Your task to perform on an android device: turn off javascript in the chrome app Image 0: 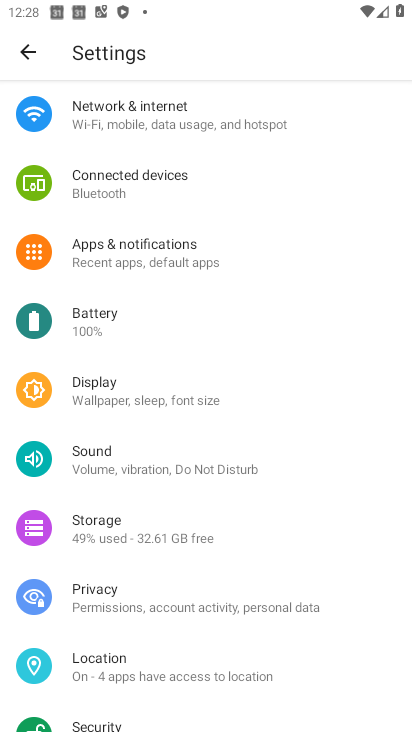
Step 0: press home button
Your task to perform on an android device: turn off javascript in the chrome app Image 1: 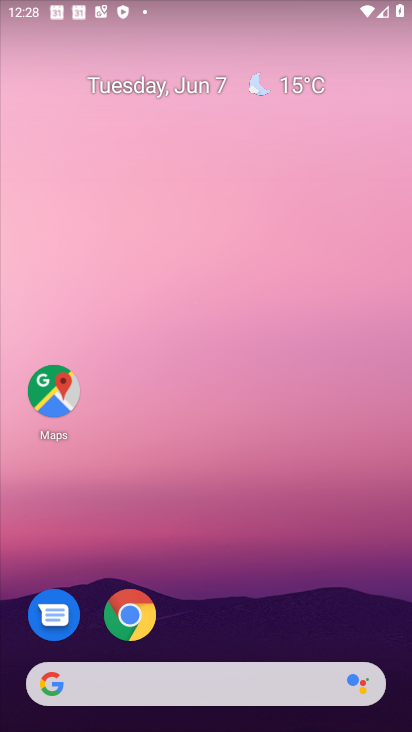
Step 1: click (166, 600)
Your task to perform on an android device: turn off javascript in the chrome app Image 2: 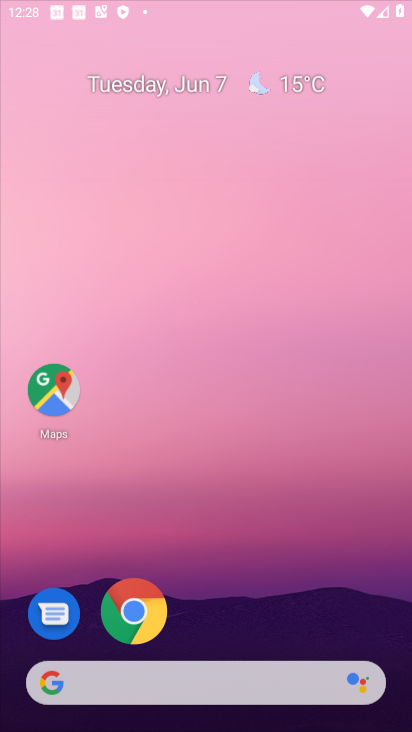
Step 2: click (146, 619)
Your task to perform on an android device: turn off javascript in the chrome app Image 3: 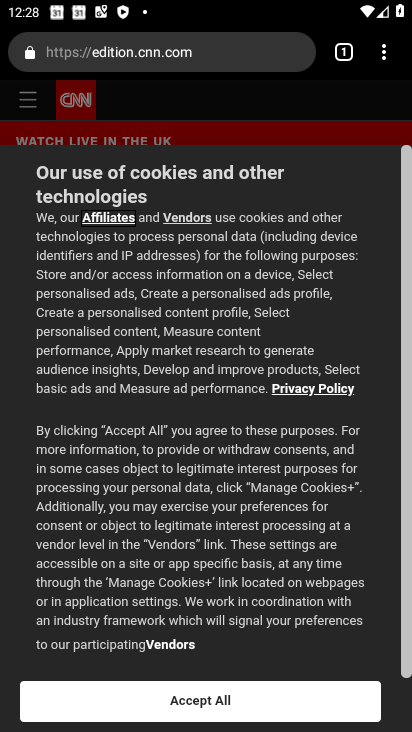
Step 3: click (387, 59)
Your task to perform on an android device: turn off javascript in the chrome app Image 4: 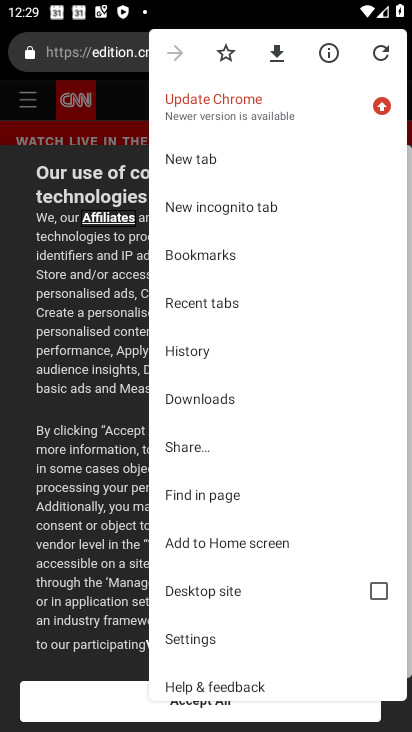
Step 4: click (193, 641)
Your task to perform on an android device: turn off javascript in the chrome app Image 5: 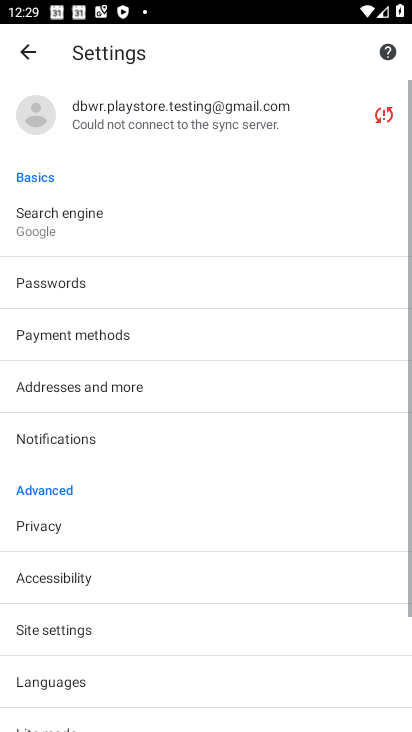
Step 5: drag from (193, 641) to (192, 425)
Your task to perform on an android device: turn off javascript in the chrome app Image 6: 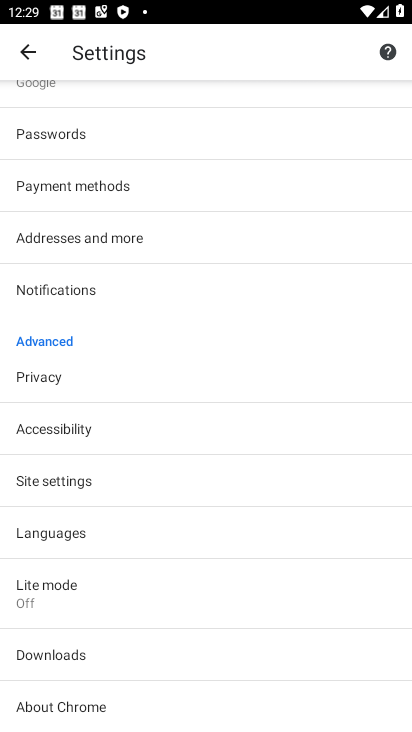
Step 6: click (61, 486)
Your task to perform on an android device: turn off javascript in the chrome app Image 7: 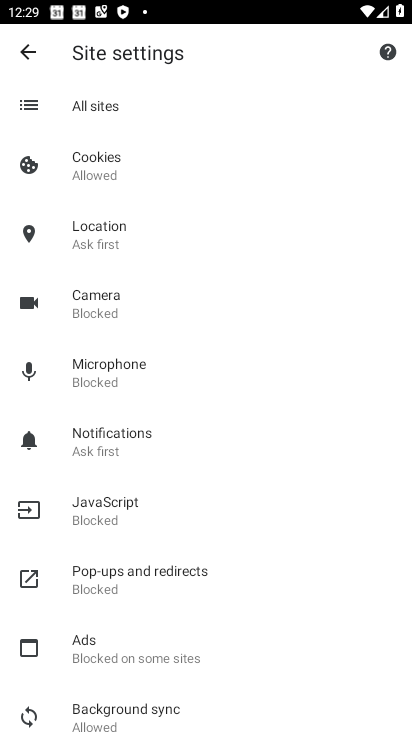
Step 7: click (94, 518)
Your task to perform on an android device: turn off javascript in the chrome app Image 8: 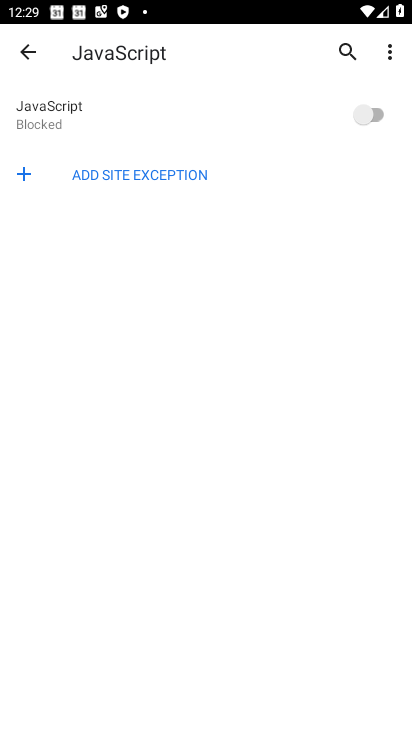
Step 8: task complete